Your task to perform on an android device: Open sound settings Image 0: 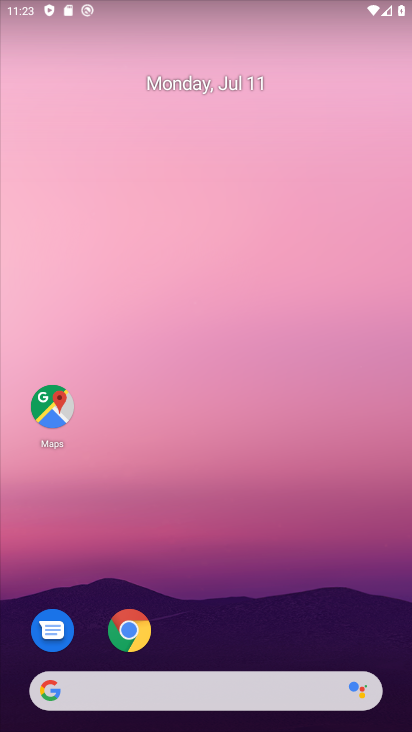
Step 0: drag from (184, 694) to (106, 109)
Your task to perform on an android device: Open sound settings Image 1: 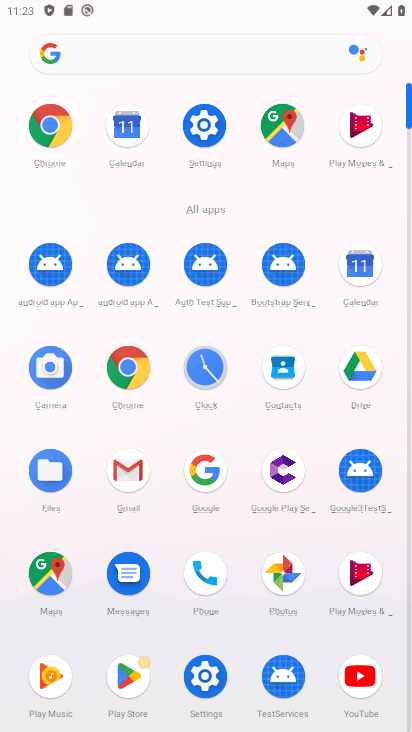
Step 1: click (206, 676)
Your task to perform on an android device: Open sound settings Image 2: 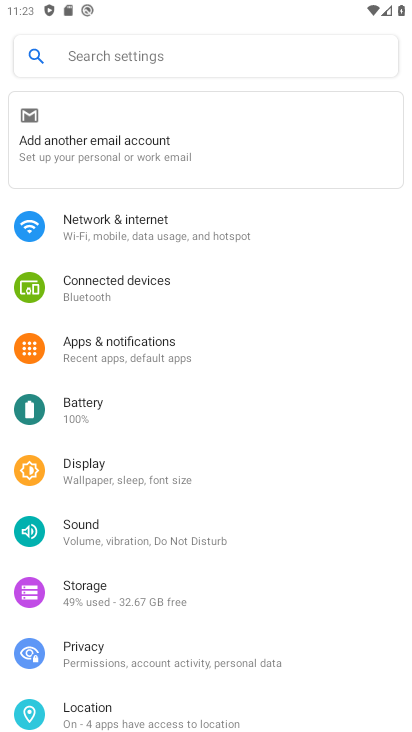
Step 2: click (92, 535)
Your task to perform on an android device: Open sound settings Image 3: 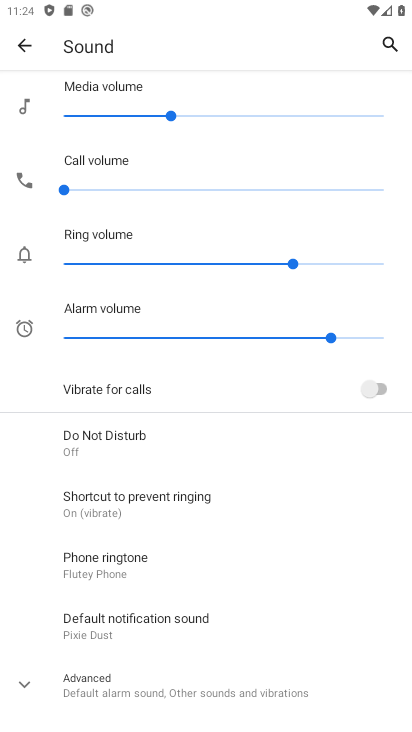
Step 3: task complete